Your task to perform on an android device: Open settings Image 0: 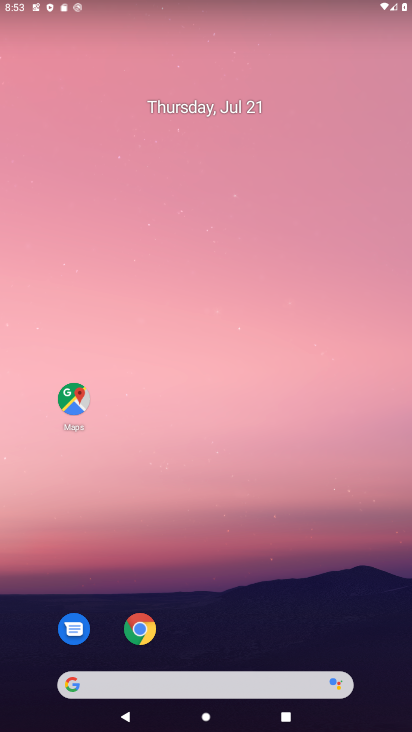
Step 0: drag from (226, 631) to (334, 103)
Your task to perform on an android device: Open settings Image 1: 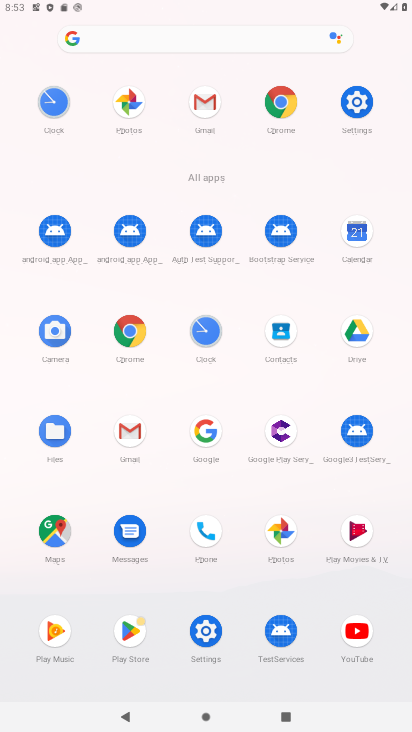
Step 1: click (359, 107)
Your task to perform on an android device: Open settings Image 2: 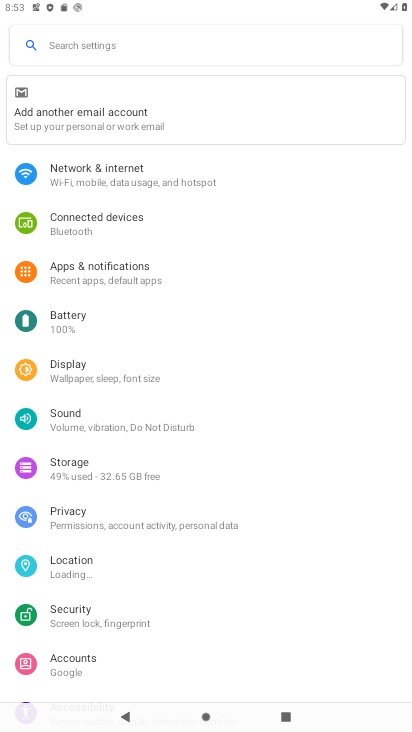
Step 2: task complete